Your task to perform on an android device: Turn off the flashlight Image 0: 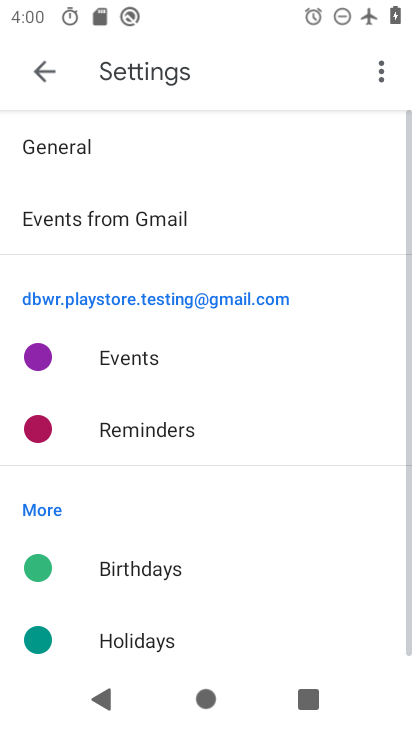
Step 0: press home button
Your task to perform on an android device: Turn off the flashlight Image 1: 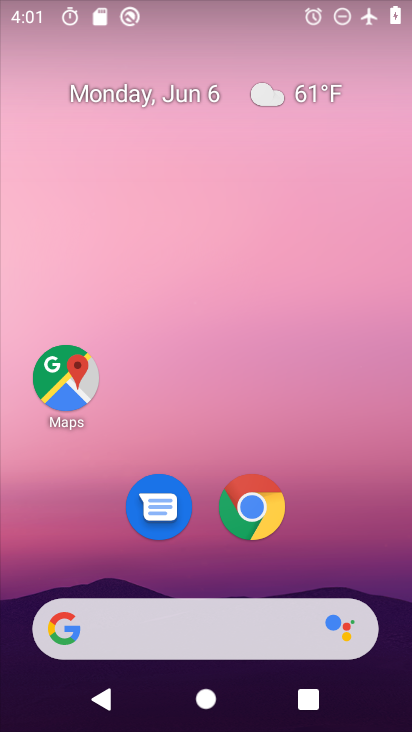
Step 1: drag from (202, 568) to (202, 178)
Your task to perform on an android device: Turn off the flashlight Image 2: 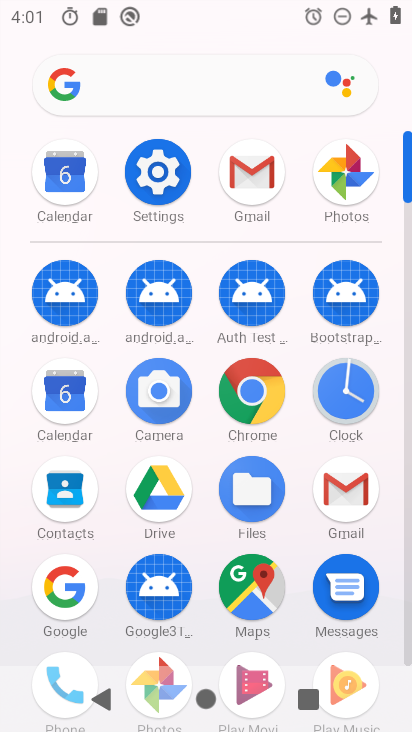
Step 2: click (166, 197)
Your task to perform on an android device: Turn off the flashlight Image 3: 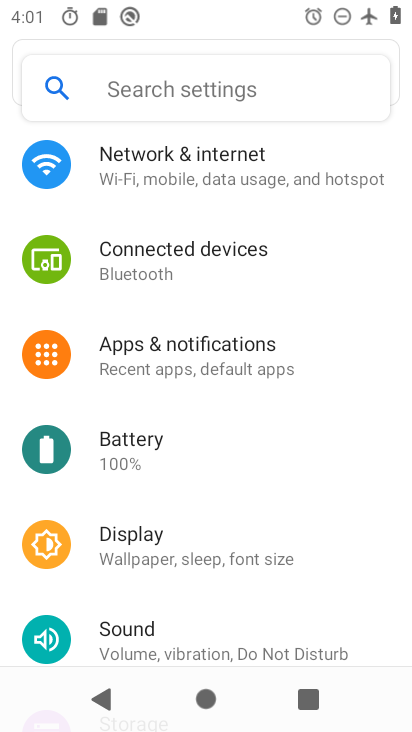
Step 3: task complete